Your task to perform on an android device: Open Maps and search for coffee Image 0: 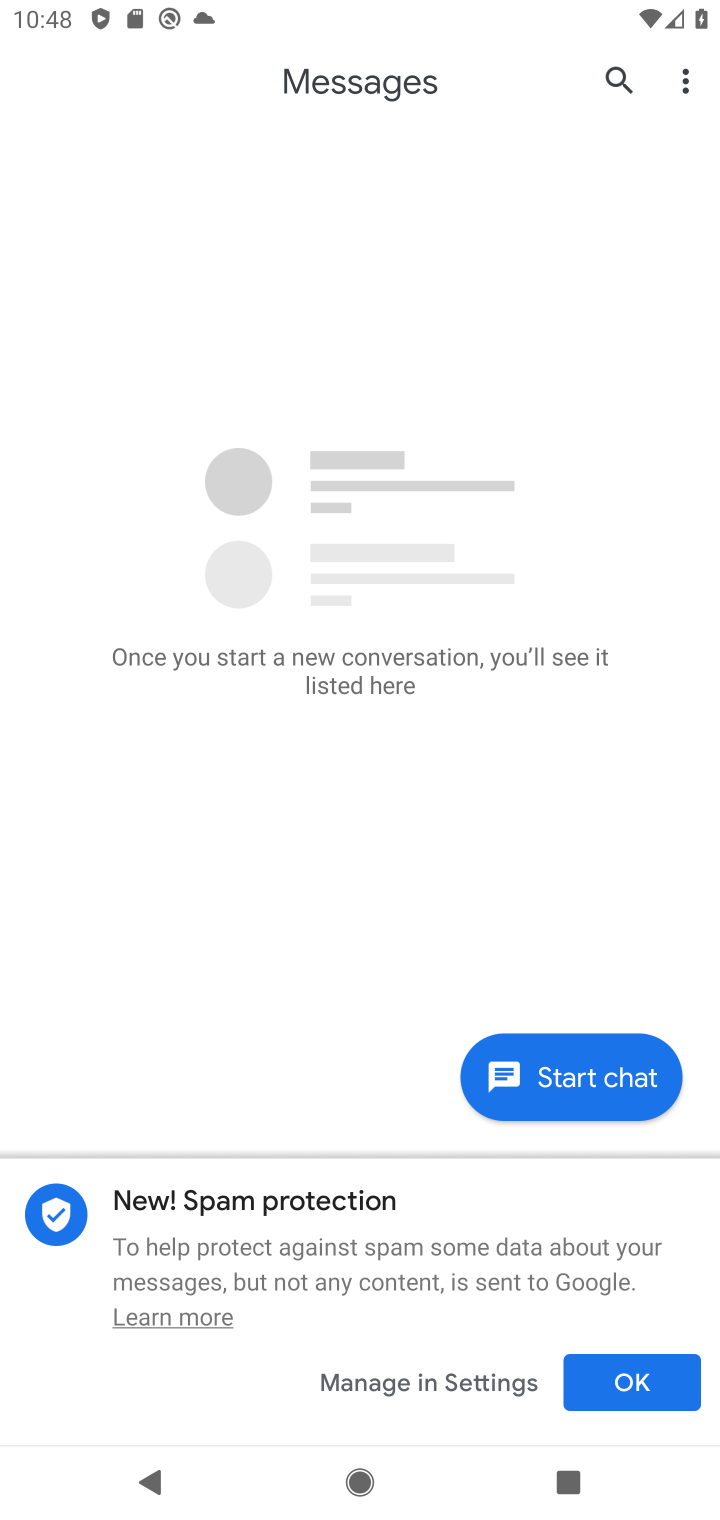
Step 0: press back button
Your task to perform on an android device: Open Maps and search for coffee Image 1: 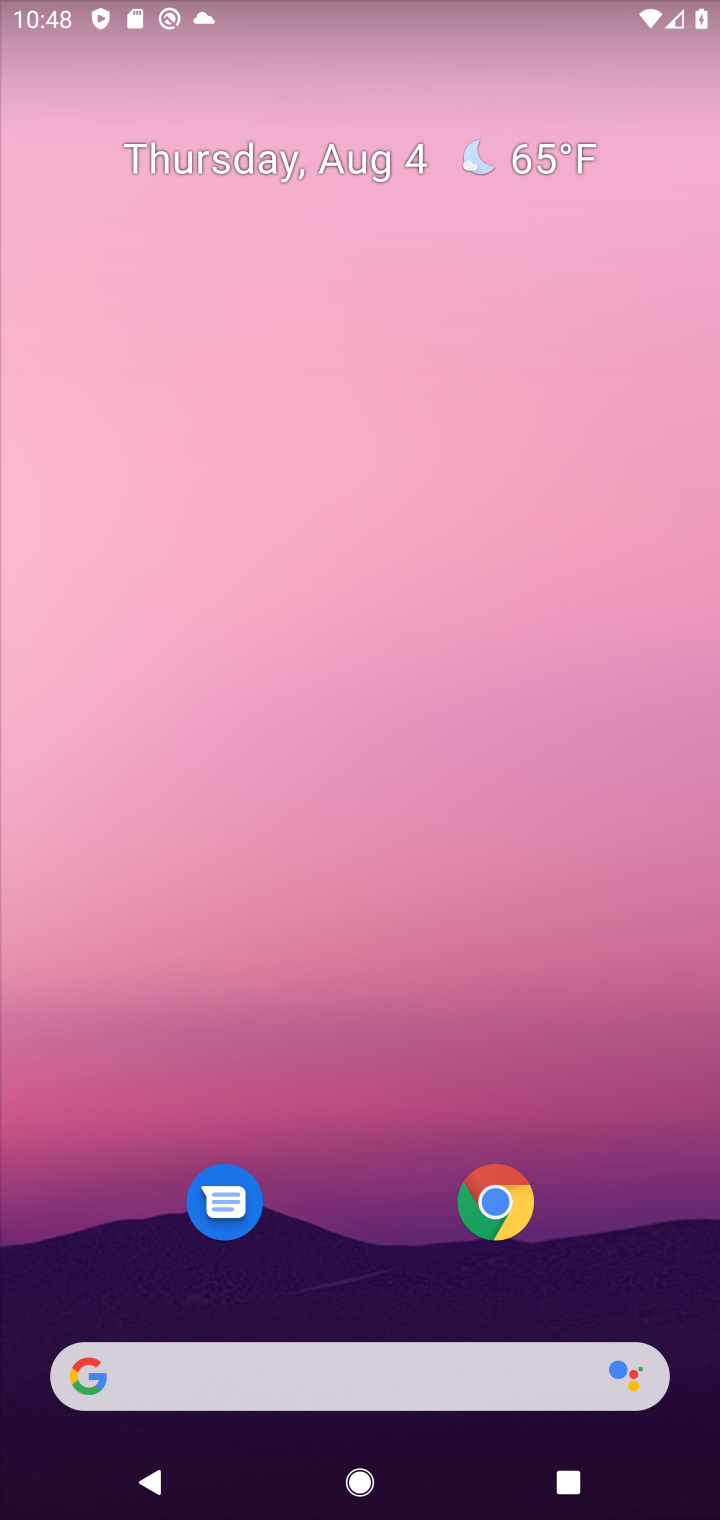
Step 1: drag from (344, 1130) to (482, 92)
Your task to perform on an android device: Open Maps and search for coffee Image 2: 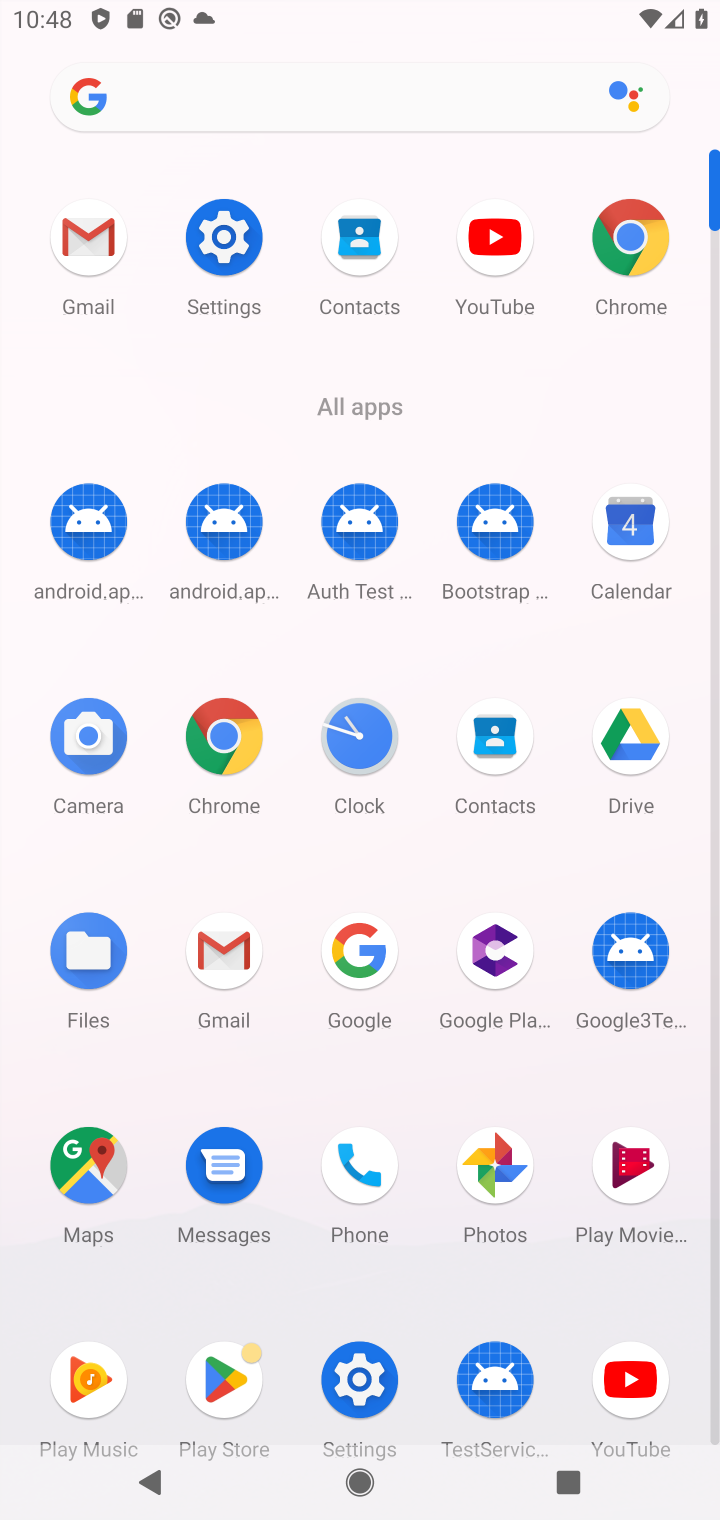
Step 2: click (80, 1175)
Your task to perform on an android device: Open Maps and search for coffee Image 3: 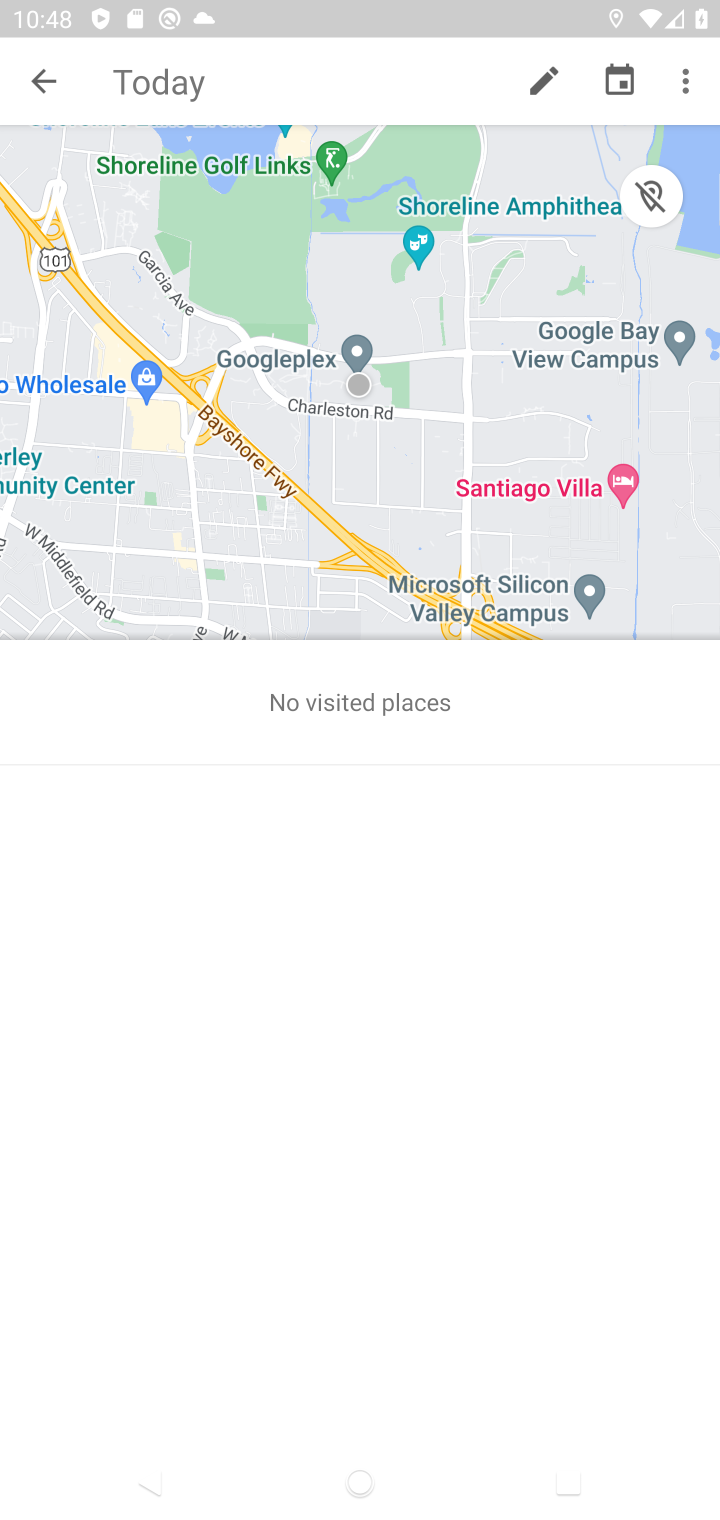
Step 3: click (62, 59)
Your task to perform on an android device: Open Maps and search for coffee Image 4: 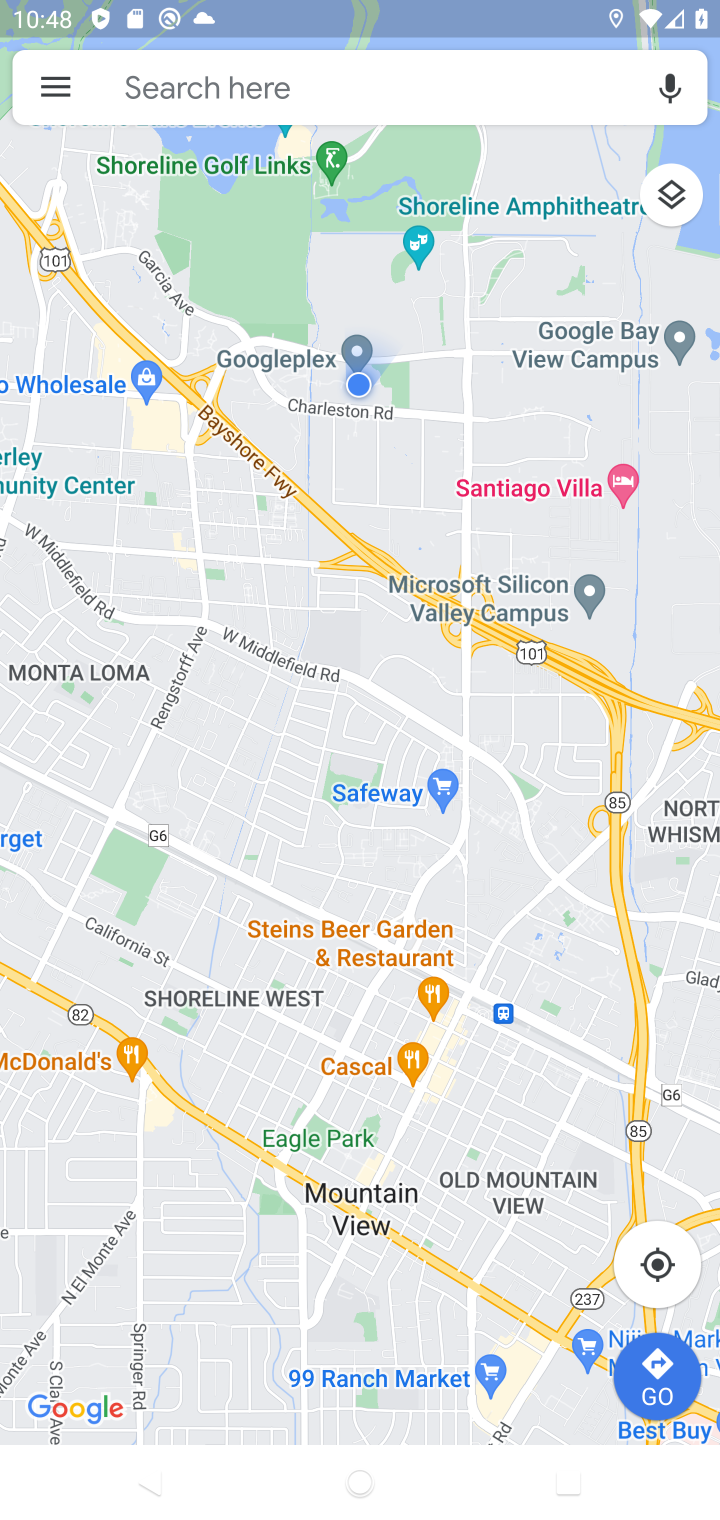
Step 4: click (395, 96)
Your task to perform on an android device: Open Maps and search for coffee Image 5: 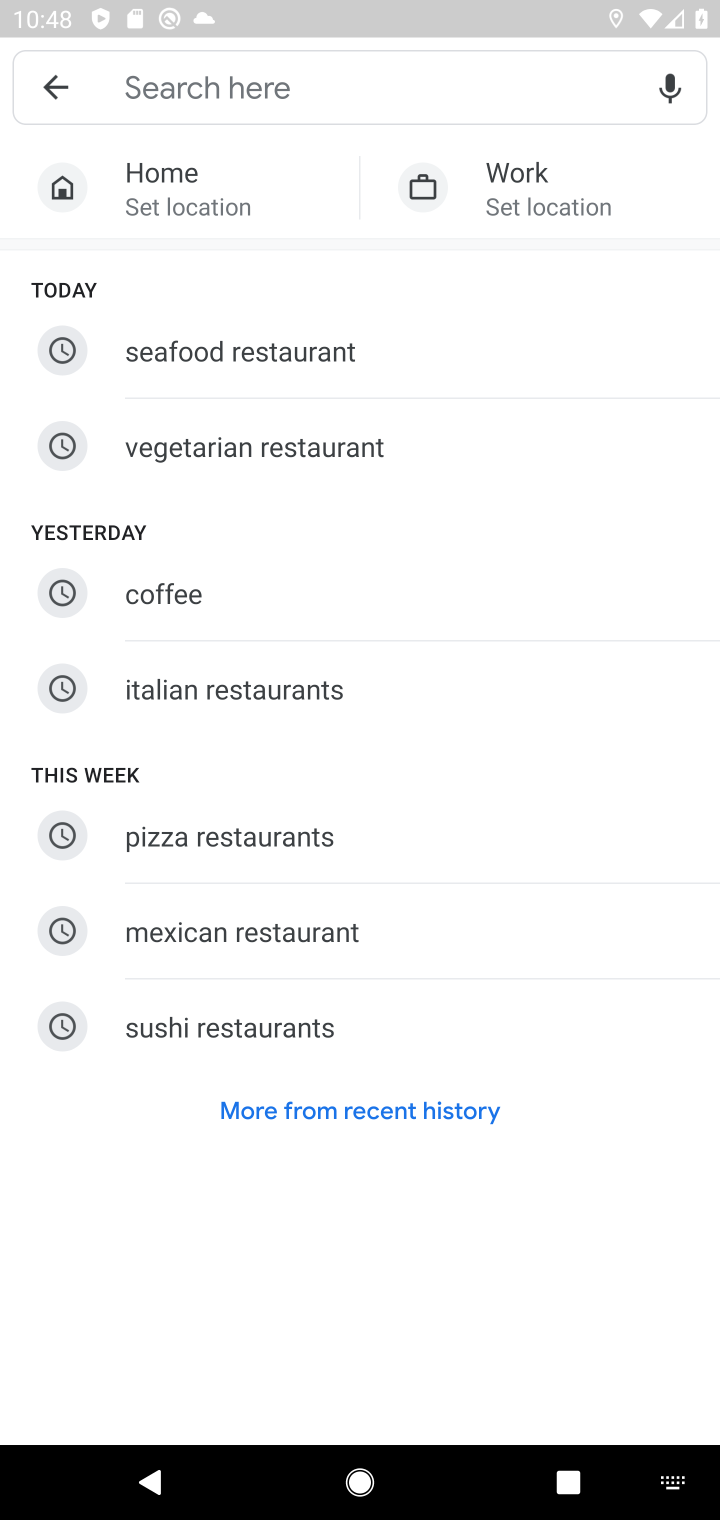
Step 5: click (199, 609)
Your task to perform on an android device: Open Maps and search for coffee Image 6: 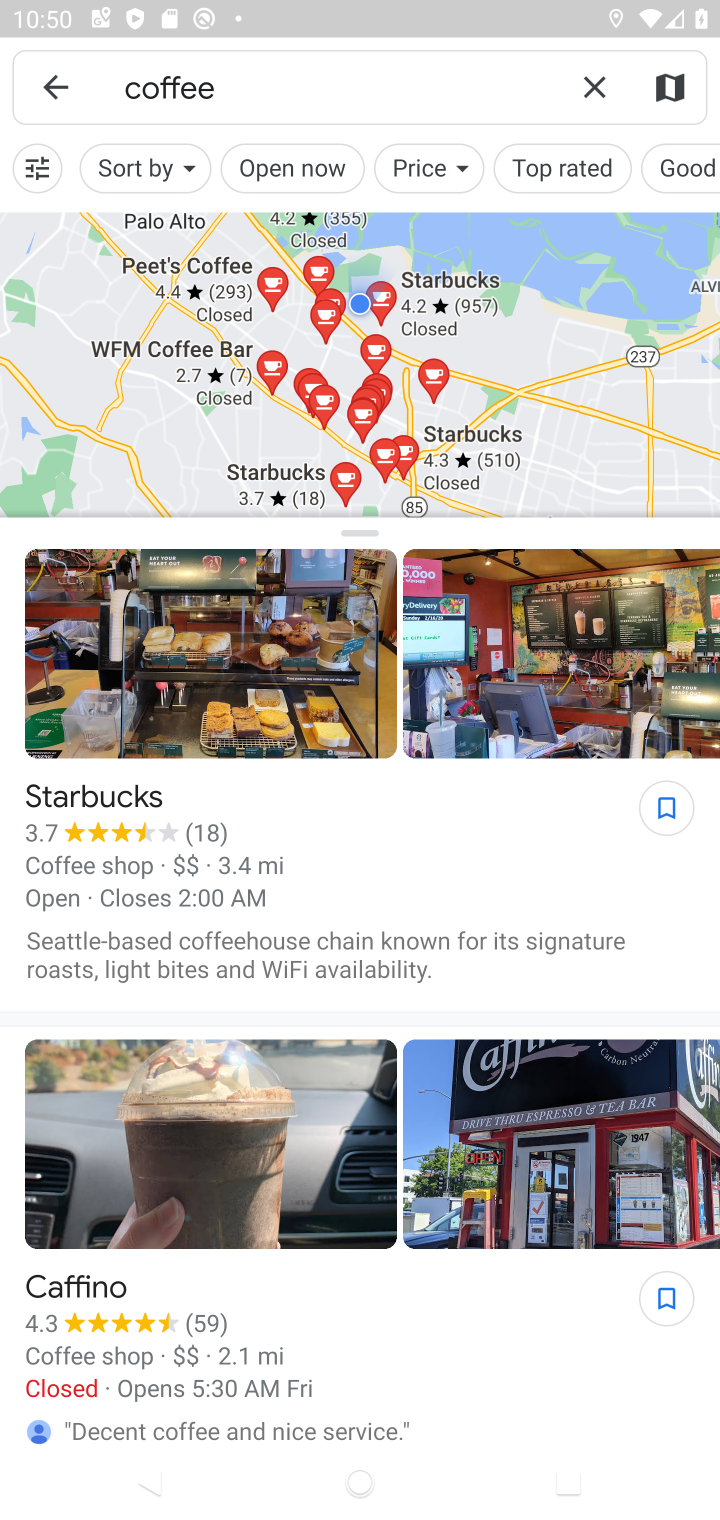
Step 6: task complete